Your task to perform on an android device: Set the phone to "Do not disturb". Image 0: 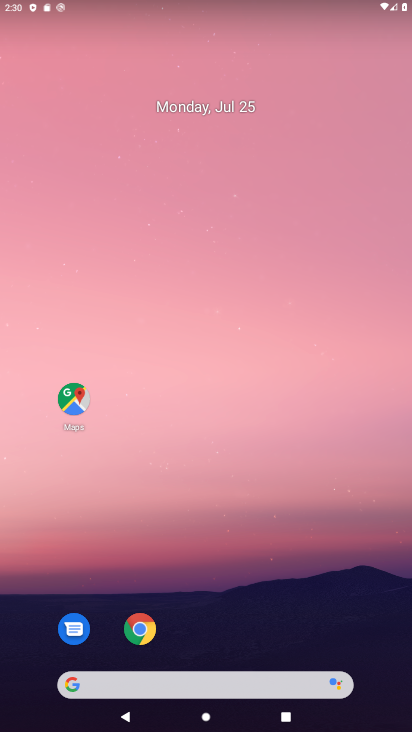
Step 0: drag from (252, 20) to (263, 556)
Your task to perform on an android device: Set the phone to "Do not disturb". Image 1: 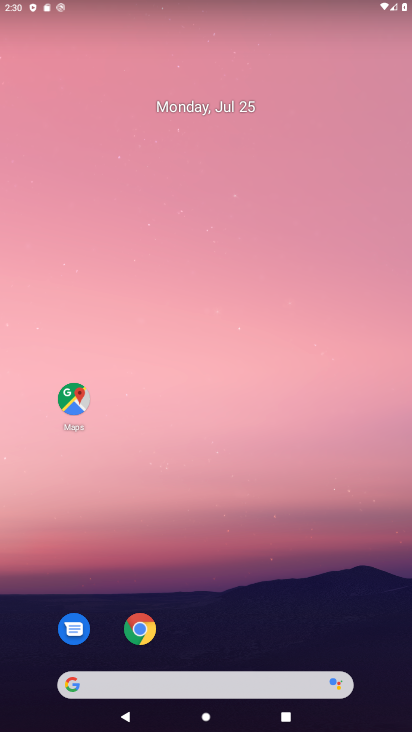
Step 1: drag from (228, 11) to (213, 438)
Your task to perform on an android device: Set the phone to "Do not disturb". Image 2: 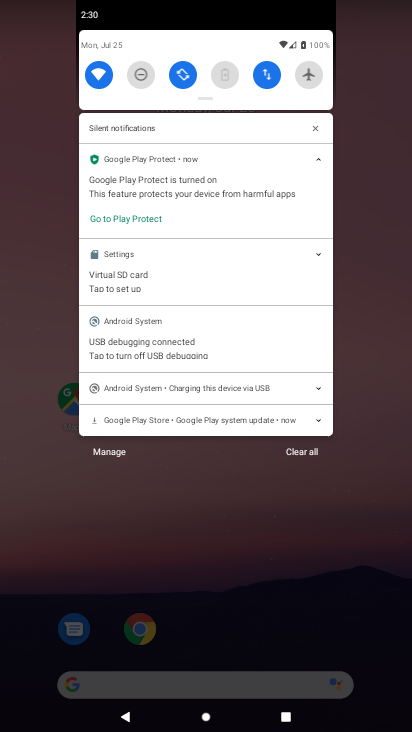
Step 2: click (139, 70)
Your task to perform on an android device: Set the phone to "Do not disturb". Image 3: 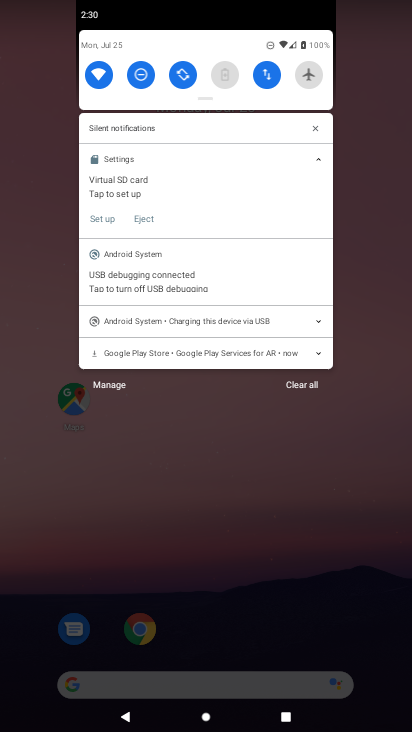
Step 3: task complete